Your task to perform on an android device: show emergency info Image 0: 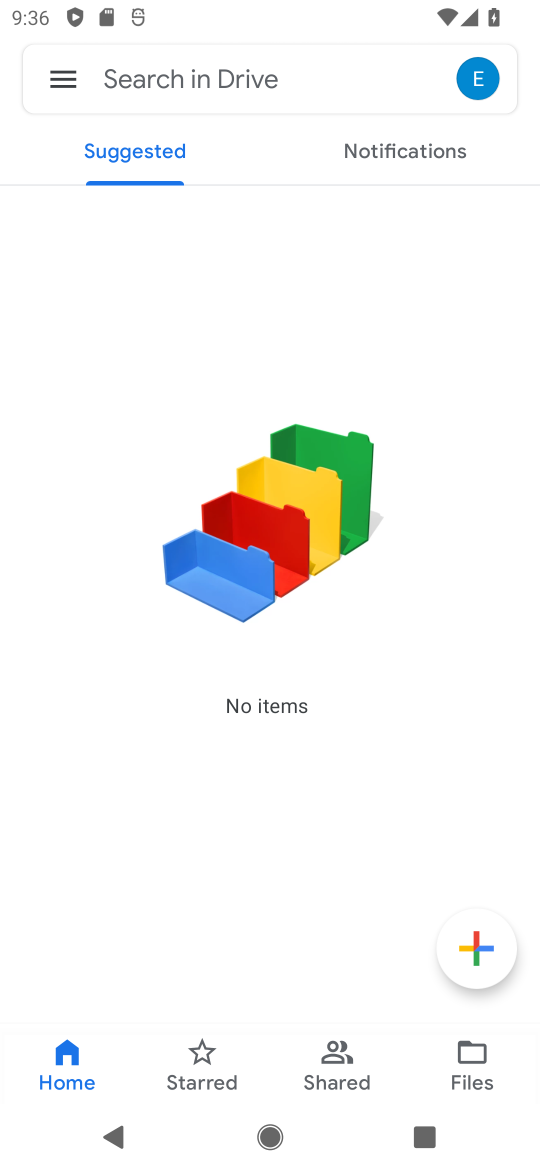
Step 0: press home button
Your task to perform on an android device: show emergency info Image 1: 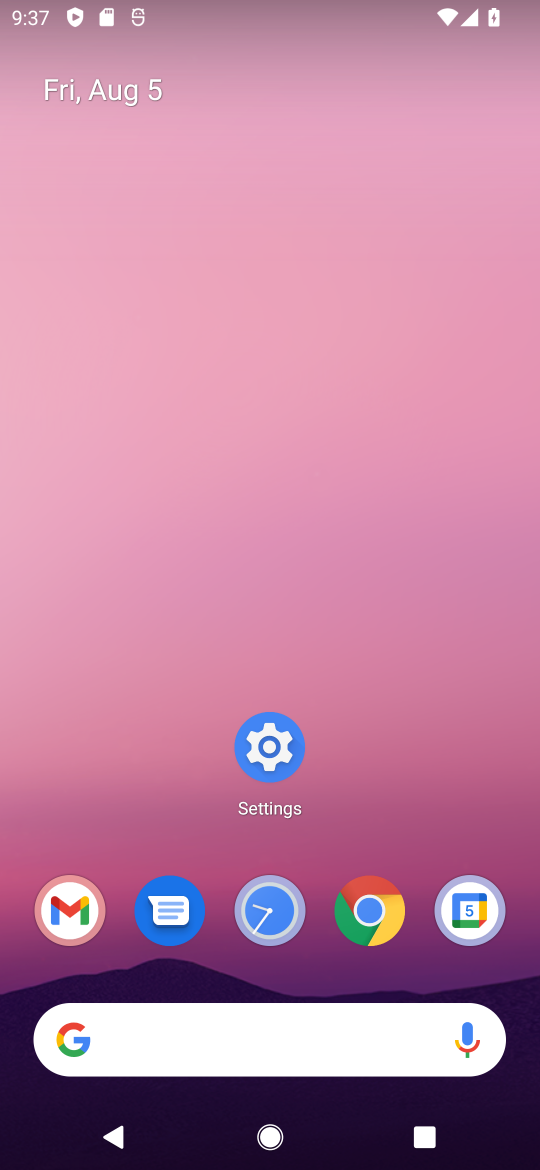
Step 1: click (285, 747)
Your task to perform on an android device: show emergency info Image 2: 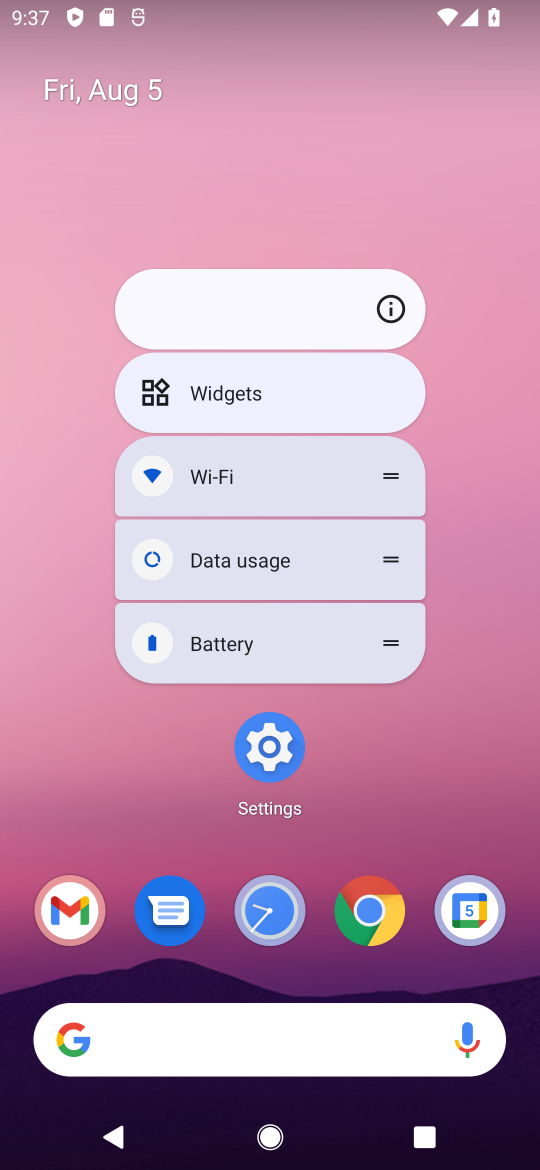
Step 2: click (271, 736)
Your task to perform on an android device: show emergency info Image 3: 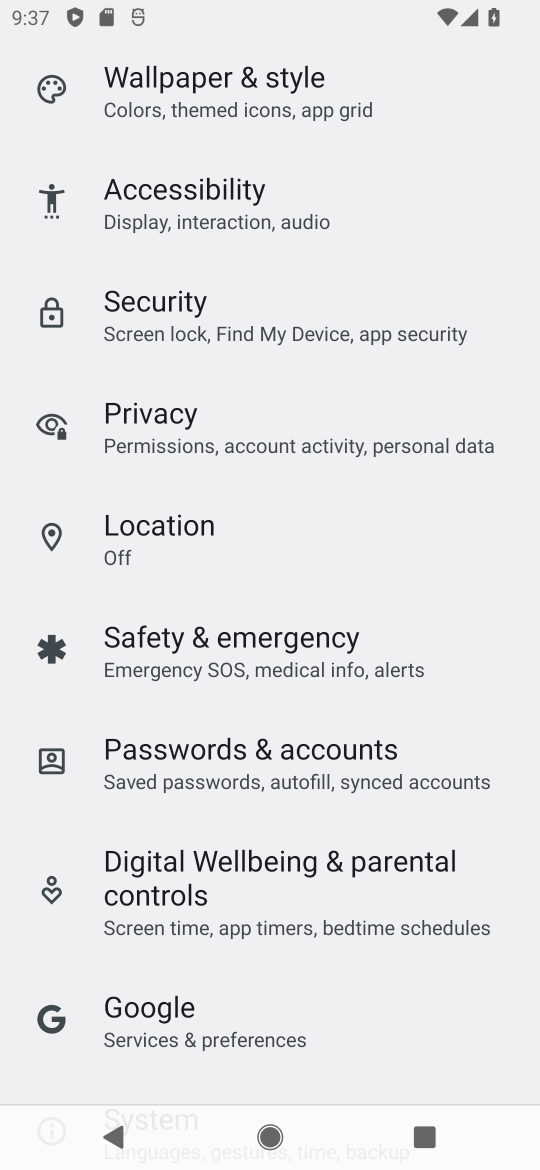
Step 3: drag from (302, 853) to (306, 466)
Your task to perform on an android device: show emergency info Image 4: 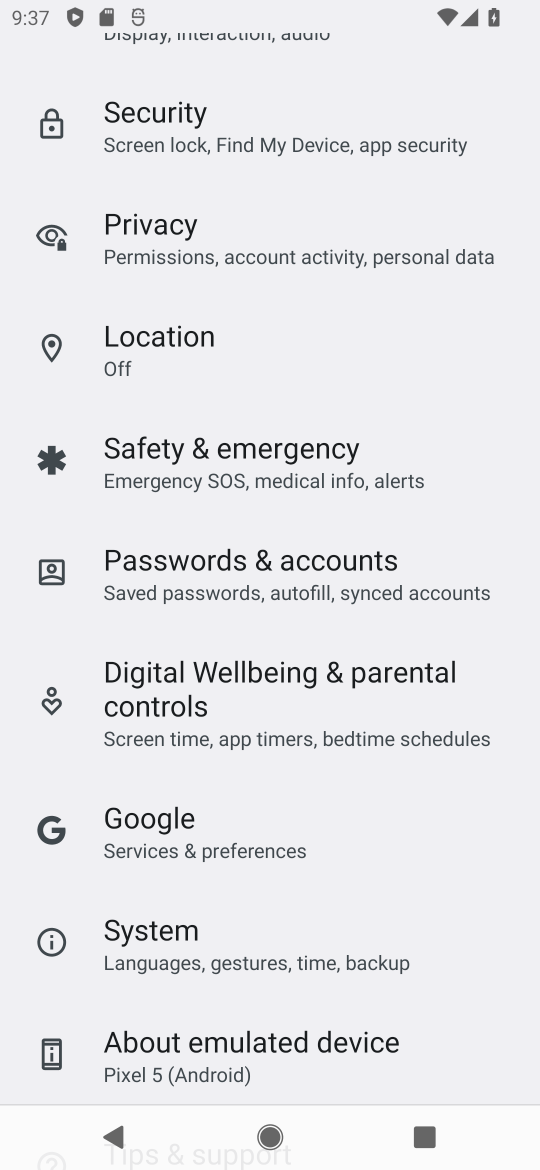
Step 4: click (231, 451)
Your task to perform on an android device: show emergency info Image 5: 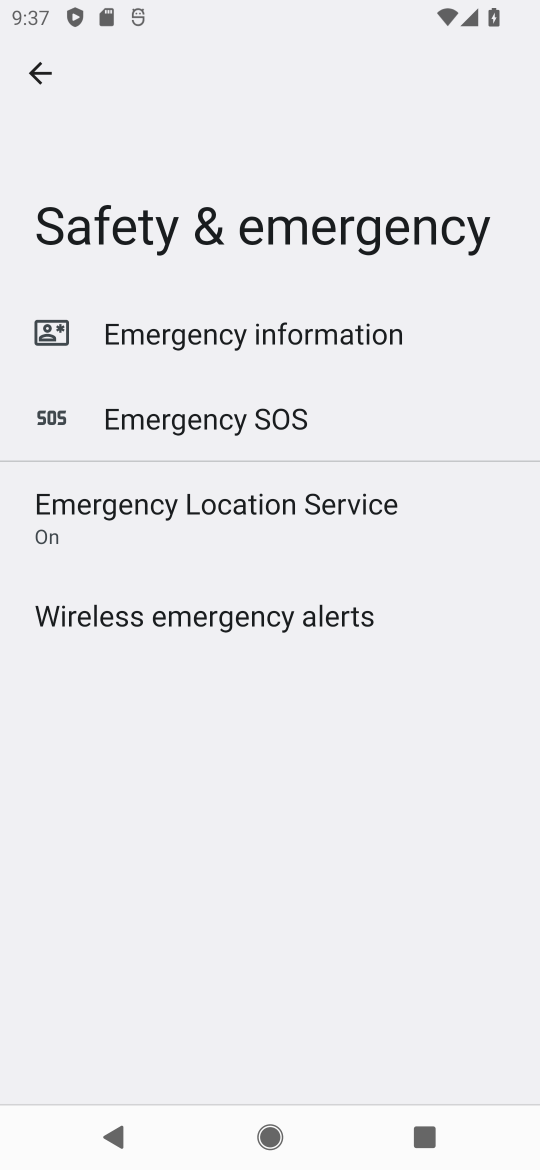
Step 5: click (250, 340)
Your task to perform on an android device: show emergency info Image 6: 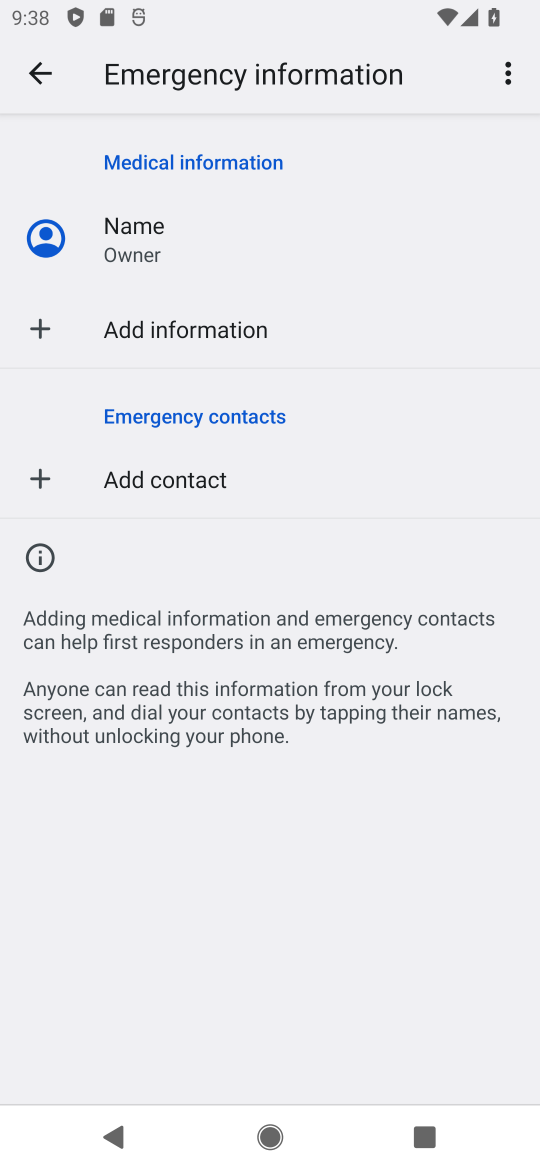
Step 6: task complete